Your task to perform on an android device: add a contact in the contacts app Image 0: 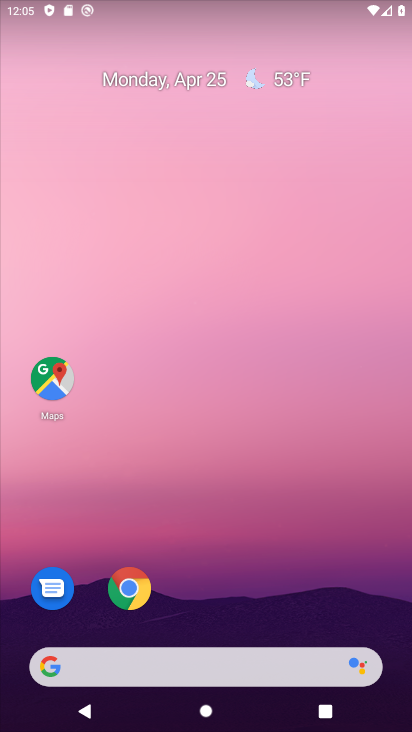
Step 0: drag from (282, 580) to (250, 125)
Your task to perform on an android device: add a contact in the contacts app Image 1: 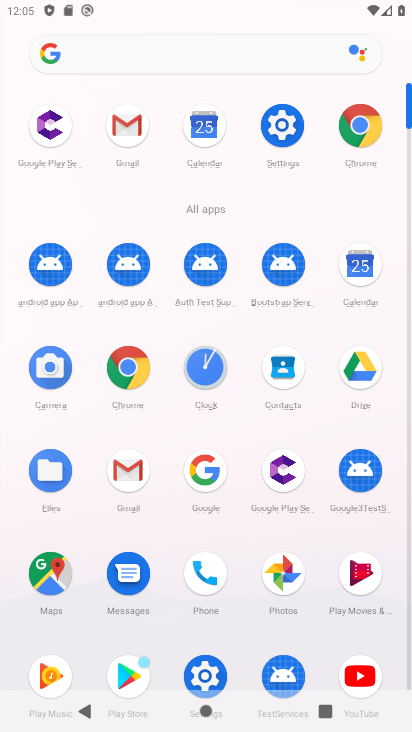
Step 1: click (288, 363)
Your task to perform on an android device: add a contact in the contacts app Image 2: 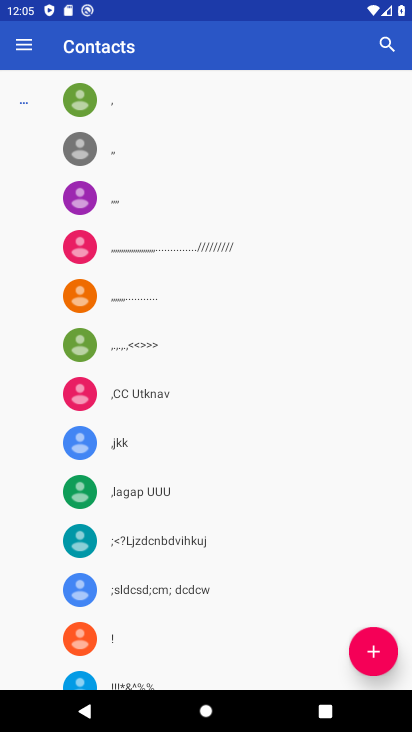
Step 2: click (385, 652)
Your task to perform on an android device: add a contact in the contacts app Image 3: 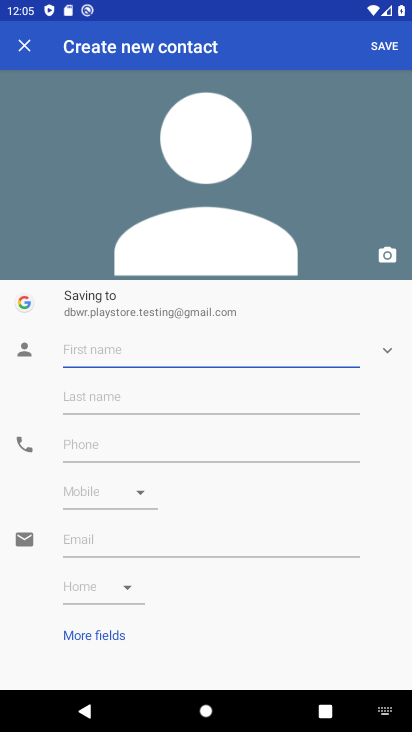
Step 3: click (242, 353)
Your task to perform on an android device: add a contact in the contacts app Image 4: 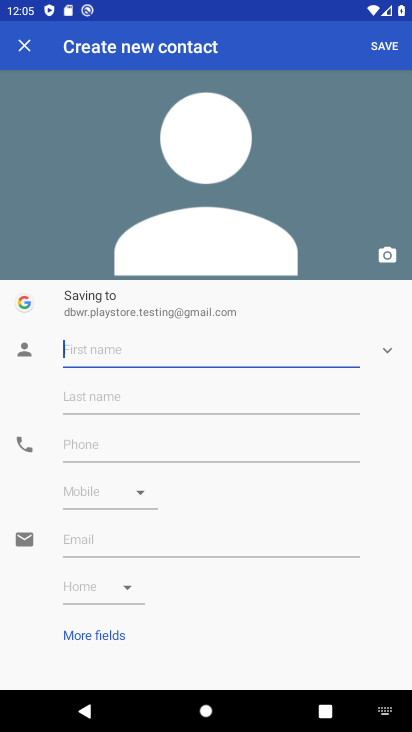
Step 4: type "bkjbk"
Your task to perform on an android device: add a contact in the contacts app Image 5: 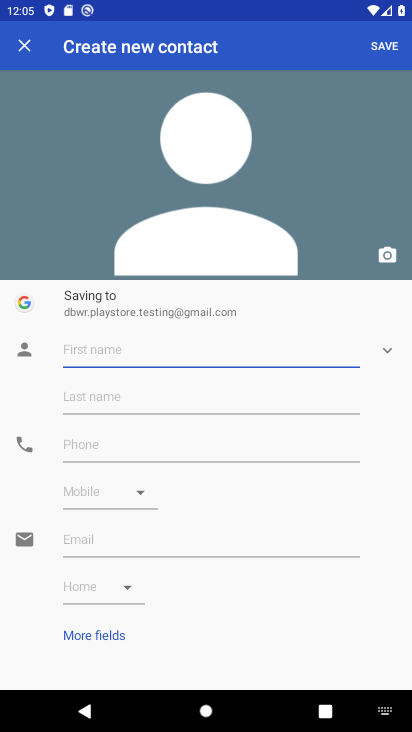
Step 5: click (287, 454)
Your task to perform on an android device: add a contact in the contacts app Image 6: 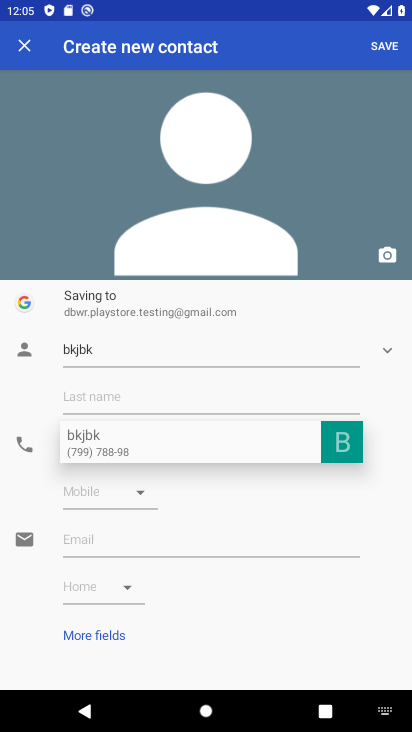
Step 6: type "6876876"
Your task to perform on an android device: add a contact in the contacts app Image 7: 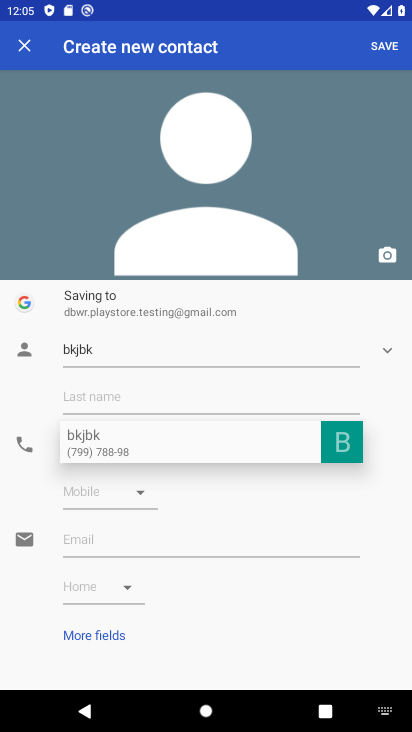
Step 7: click (398, 507)
Your task to perform on an android device: add a contact in the contacts app Image 8: 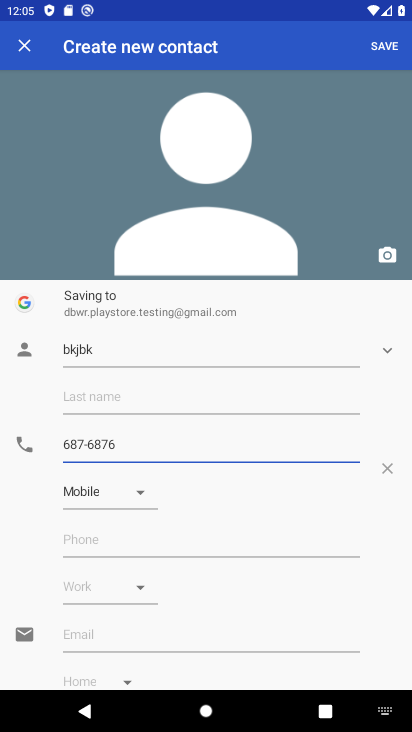
Step 8: click (390, 38)
Your task to perform on an android device: add a contact in the contacts app Image 9: 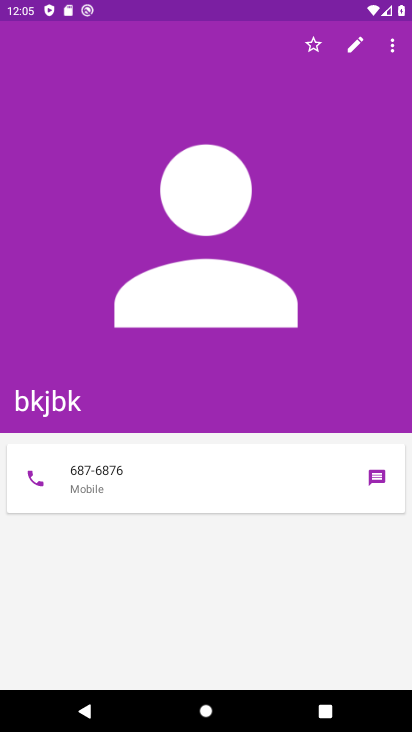
Step 9: task complete